Your task to perform on an android device: Open battery settings Image 0: 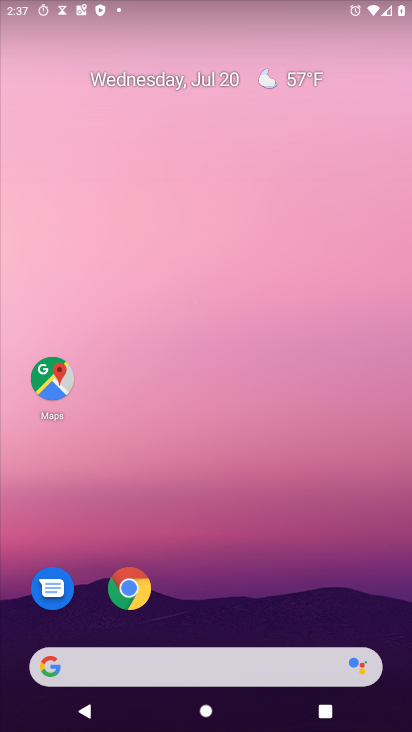
Step 0: drag from (256, 620) to (328, 8)
Your task to perform on an android device: Open battery settings Image 1: 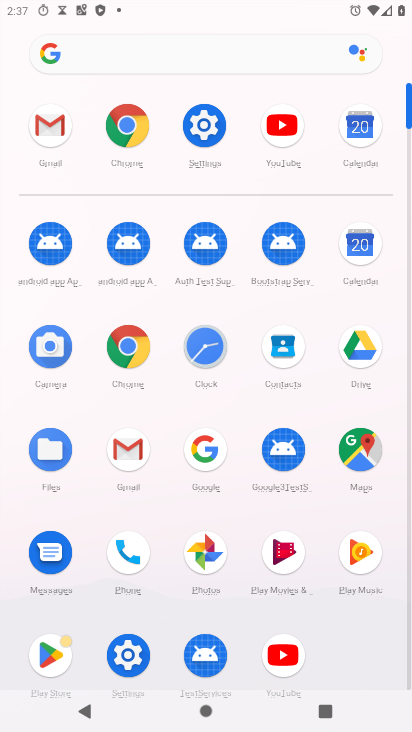
Step 1: click (198, 112)
Your task to perform on an android device: Open battery settings Image 2: 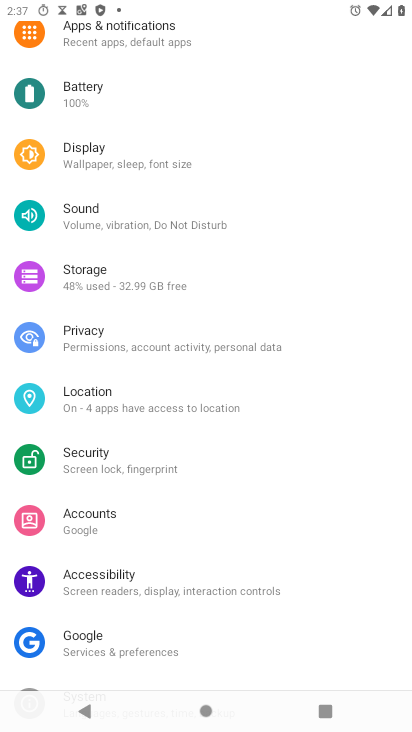
Step 2: click (127, 97)
Your task to perform on an android device: Open battery settings Image 3: 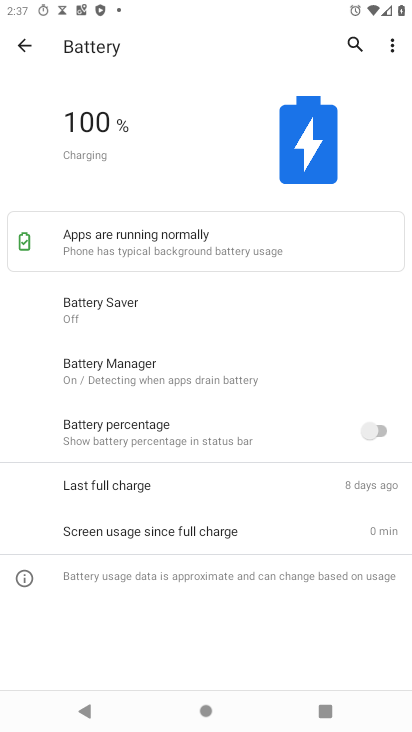
Step 3: task complete